Your task to perform on an android device: change your default location settings in chrome Image 0: 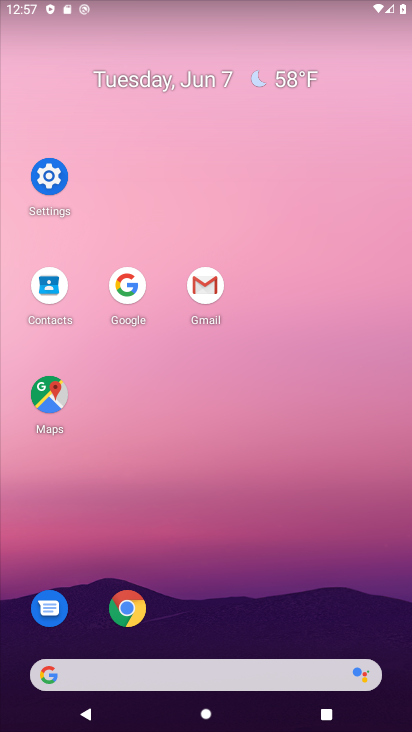
Step 0: click (136, 620)
Your task to perform on an android device: change your default location settings in chrome Image 1: 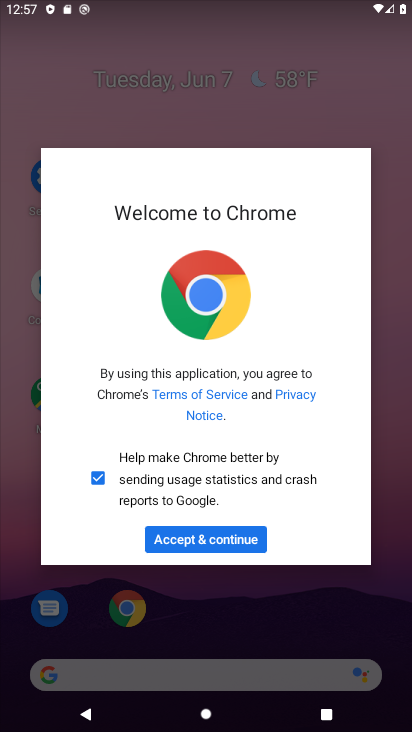
Step 1: click (222, 546)
Your task to perform on an android device: change your default location settings in chrome Image 2: 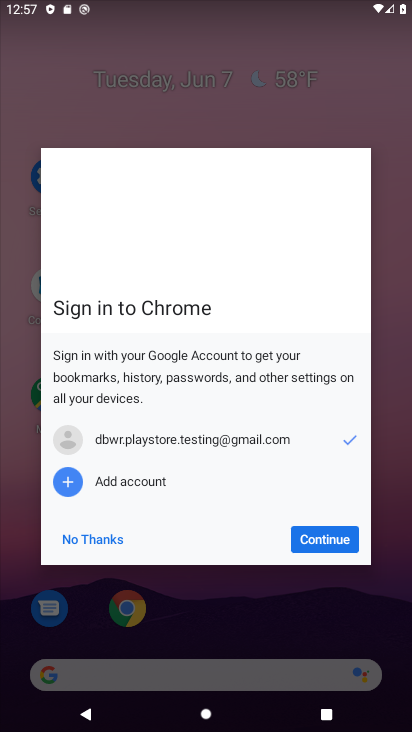
Step 2: click (345, 531)
Your task to perform on an android device: change your default location settings in chrome Image 3: 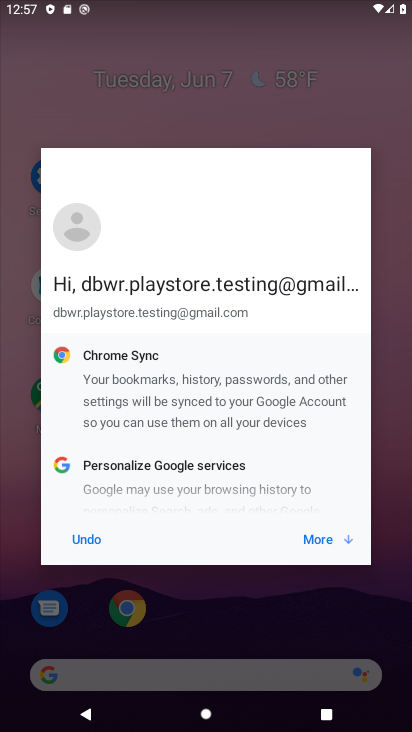
Step 3: click (311, 531)
Your task to perform on an android device: change your default location settings in chrome Image 4: 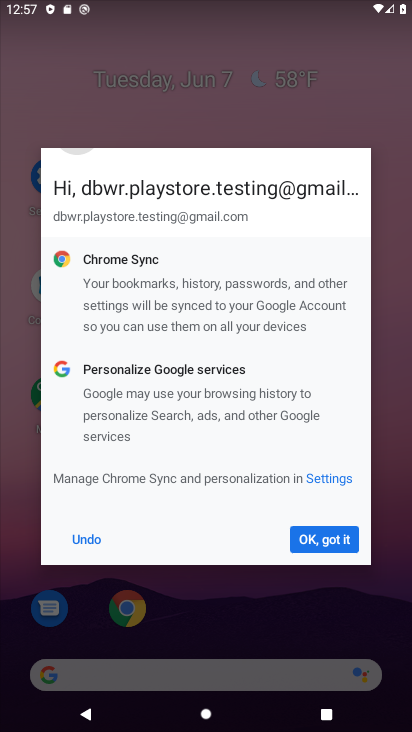
Step 4: click (311, 531)
Your task to perform on an android device: change your default location settings in chrome Image 5: 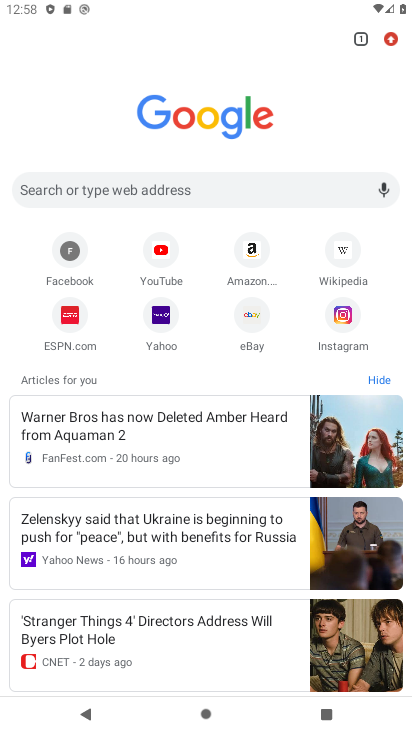
Step 5: click (391, 41)
Your task to perform on an android device: change your default location settings in chrome Image 6: 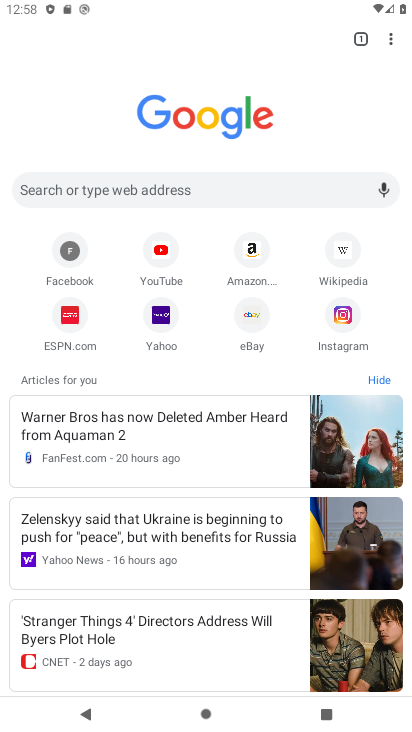
Step 6: click (391, 38)
Your task to perform on an android device: change your default location settings in chrome Image 7: 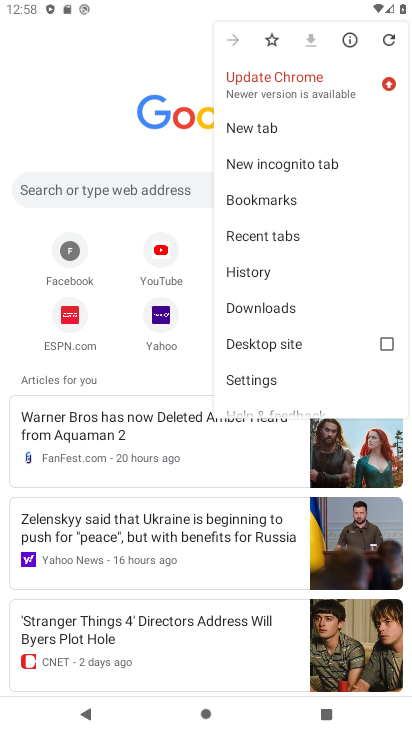
Step 7: click (276, 372)
Your task to perform on an android device: change your default location settings in chrome Image 8: 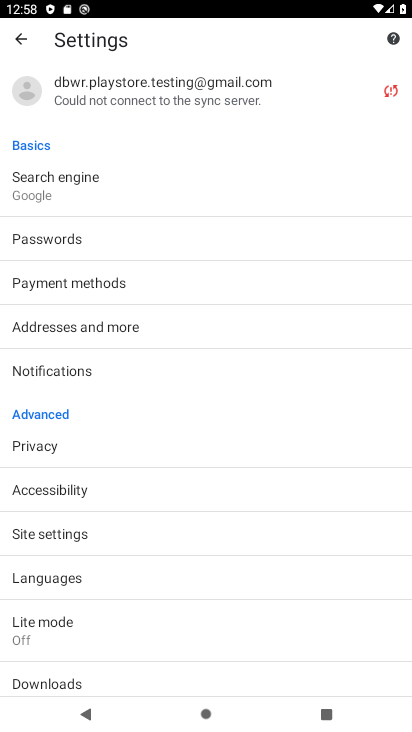
Step 8: drag from (297, 535) to (253, 222)
Your task to perform on an android device: change your default location settings in chrome Image 9: 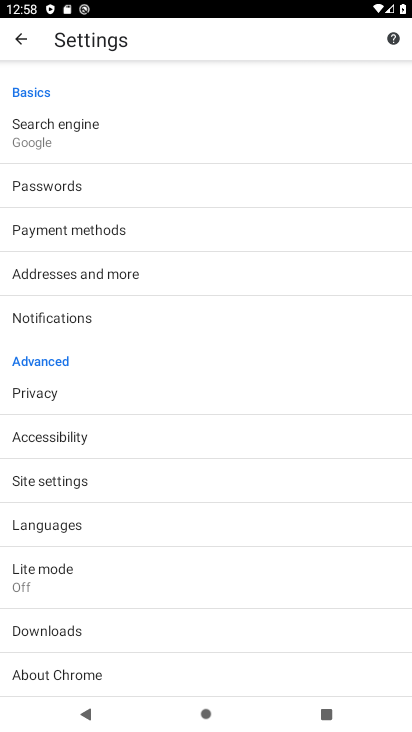
Step 9: click (112, 481)
Your task to perform on an android device: change your default location settings in chrome Image 10: 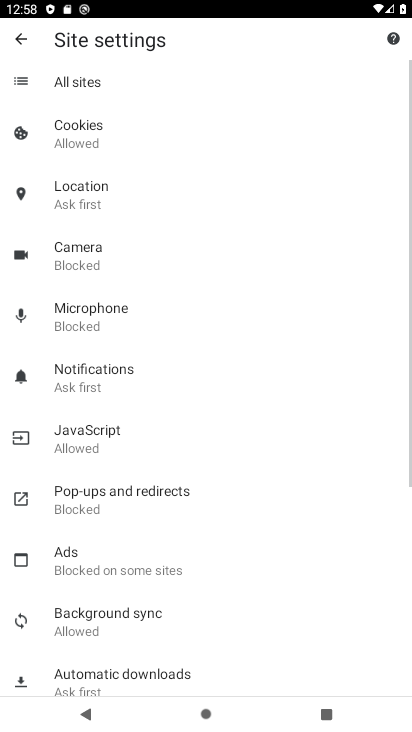
Step 10: click (122, 211)
Your task to perform on an android device: change your default location settings in chrome Image 11: 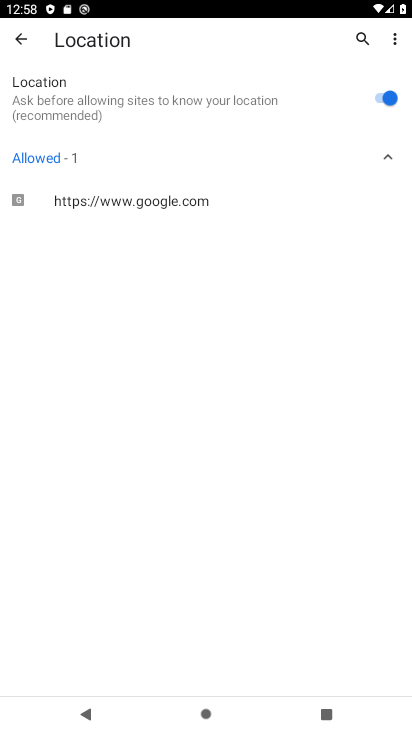
Step 11: click (394, 97)
Your task to perform on an android device: change your default location settings in chrome Image 12: 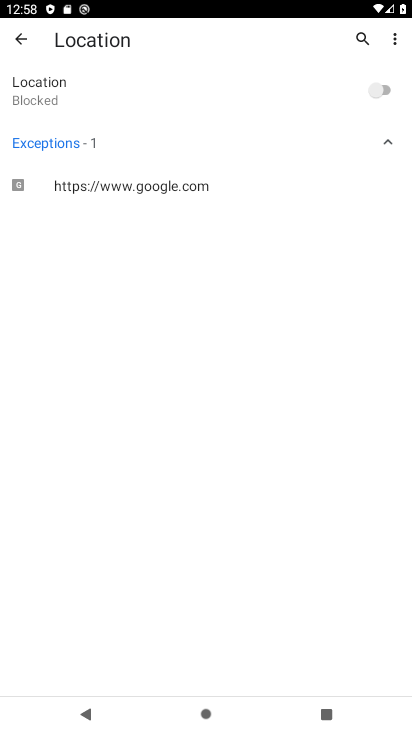
Step 12: task complete